Your task to perform on an android device: set an alarm Image 0: 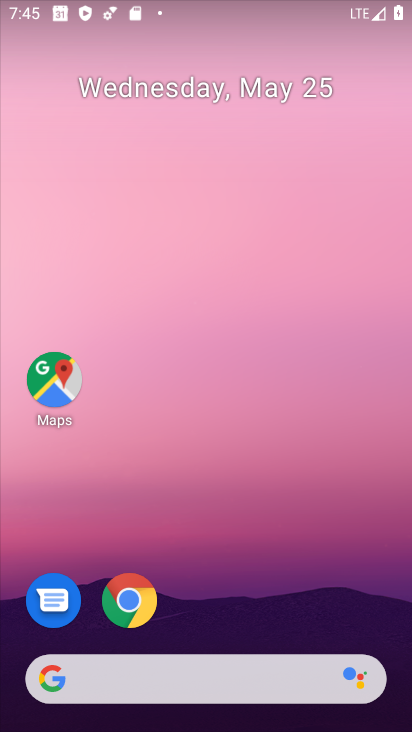
Step 0: drag from (268, 506) to (187, 7)
Your task to perform on an android device: set an alarm Image 1: 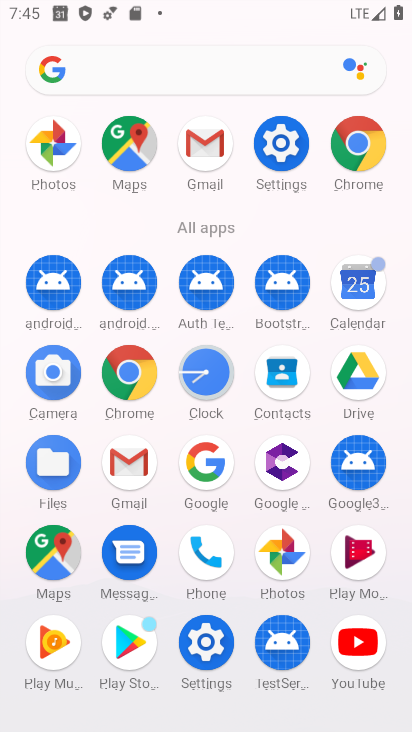
Step 1: click (196, 391)
Your task to perform on an android device: set an alarm Image 2: 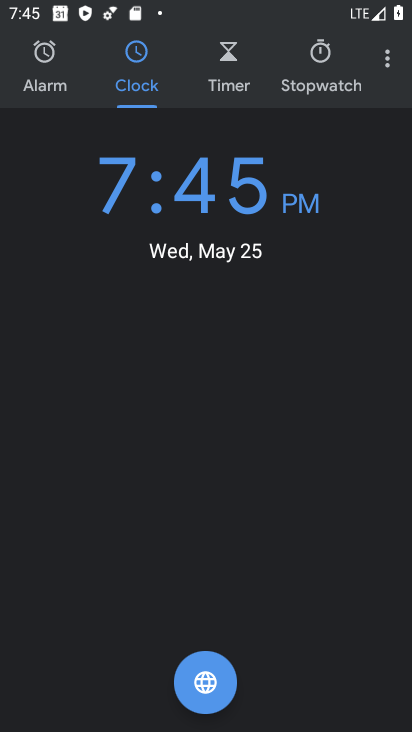
Step 2: click (62, 72)
Your task to perform on an android device: set an alarm Image 3: 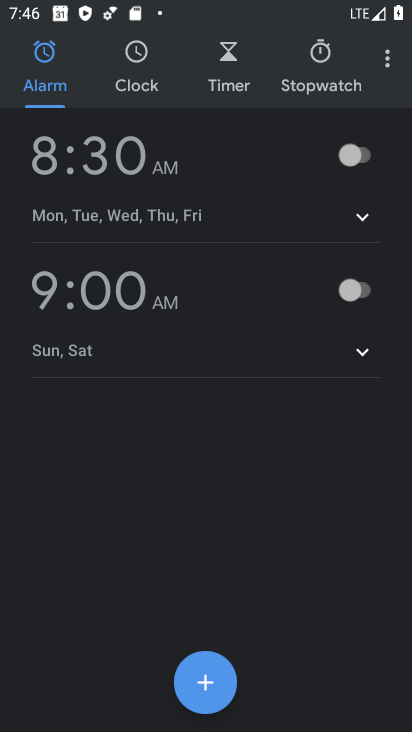
Step 3: click (198, 700)
Your task to perform on an android device: set an alarm Image 4: 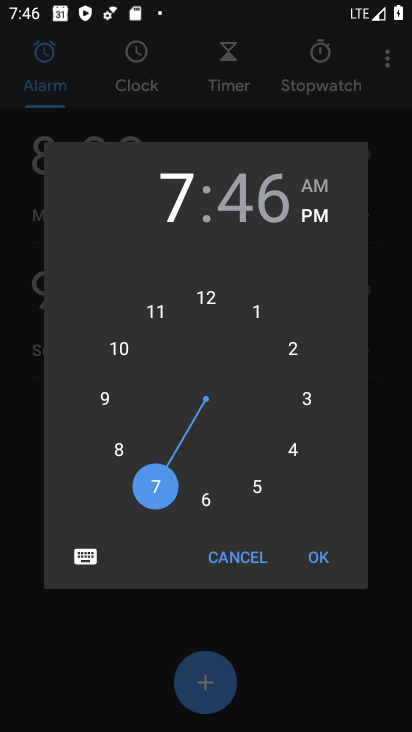
Step 4: click (319, 557)
Your task to perform on an android device: set an alarm Image 5: 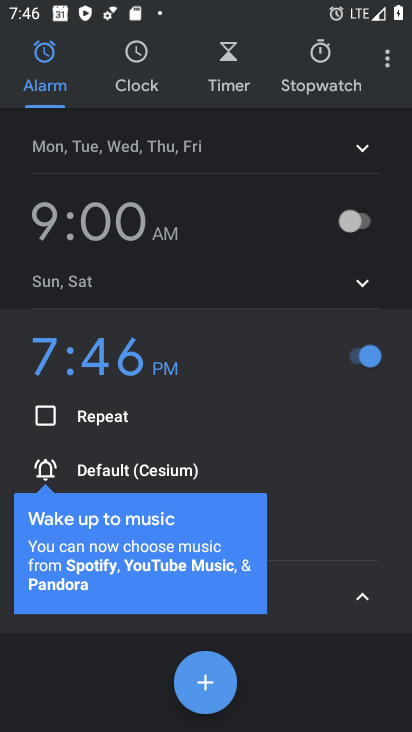
Step 5: task complete